Your task to perform on an android device: Open calendar and show me the second week of next month Image 0: 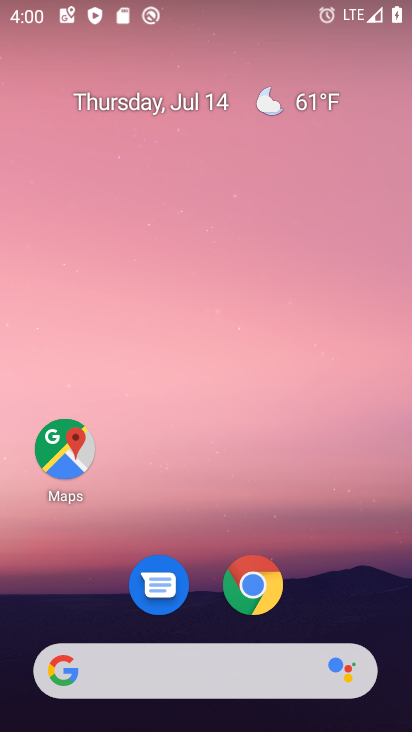
Step 0: drag from (229, 535) to (199, 28)
Your task to perform on an android device: Open calendar and show me the second week of next month Image 1: 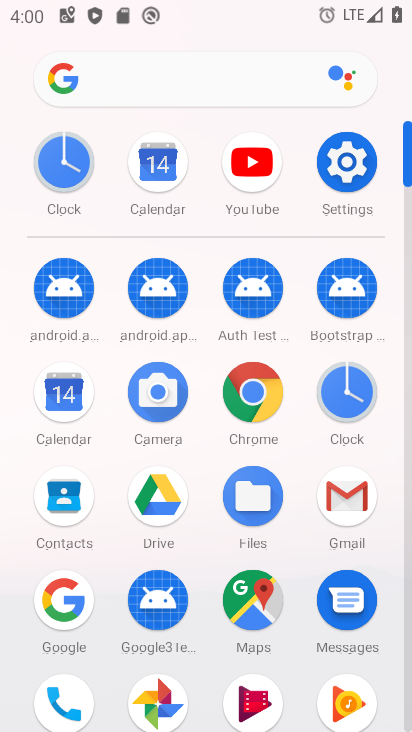
Step 1: click (156, 167)
Your task to perform on an android device: Open calendar and show me the second week of next month Image 2: 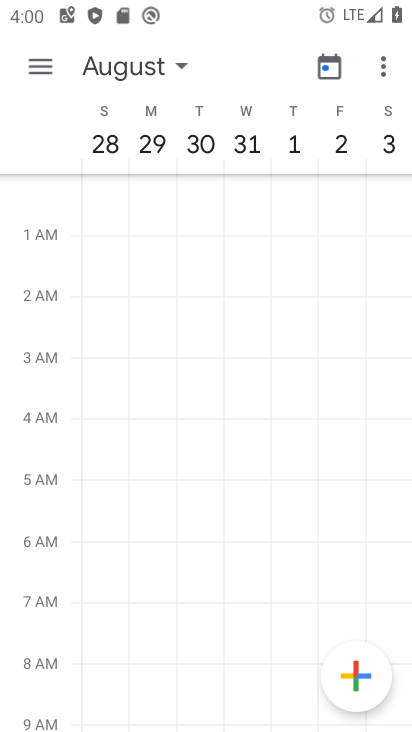
Step 2: task complete